Your task to perform on an android device: clear history in the chrome app Image 0: 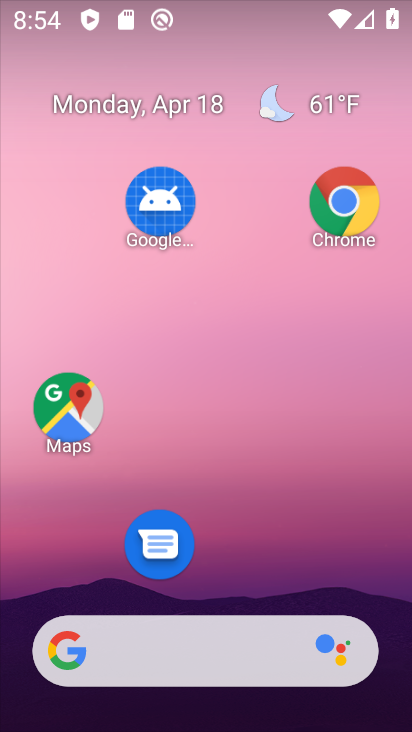
Step 0: click (344, 205)
Your task to perform on an android device: clear history in the chrome app Image 1: 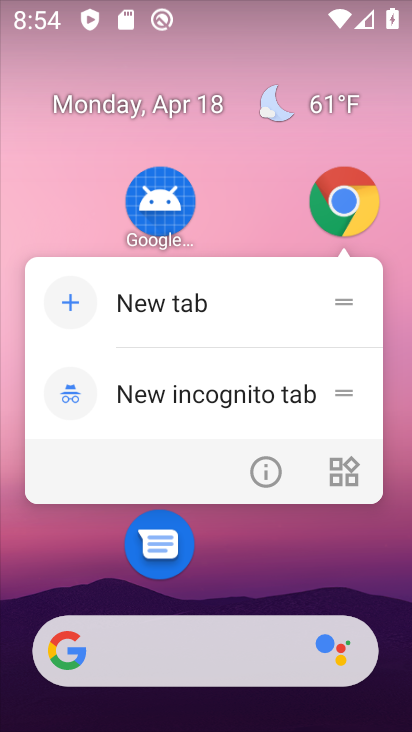
Step 1: click (325, 193)
Your task to perform on an android device: clear history in the chrome app Image 2: 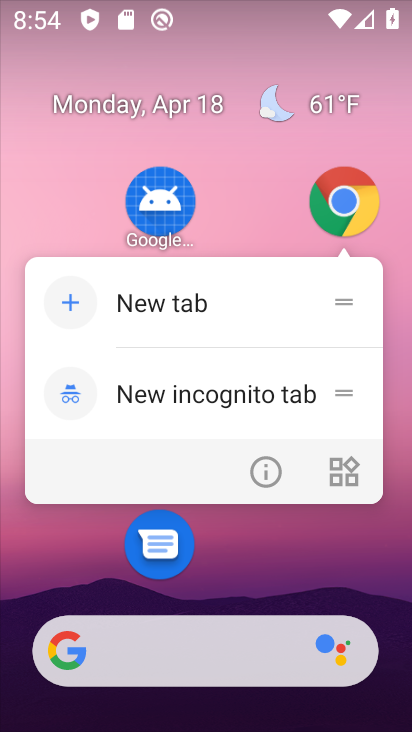
Step 2: click (328, 207)
Your task to perform on an android device: clear history in the chrome app Image 3: 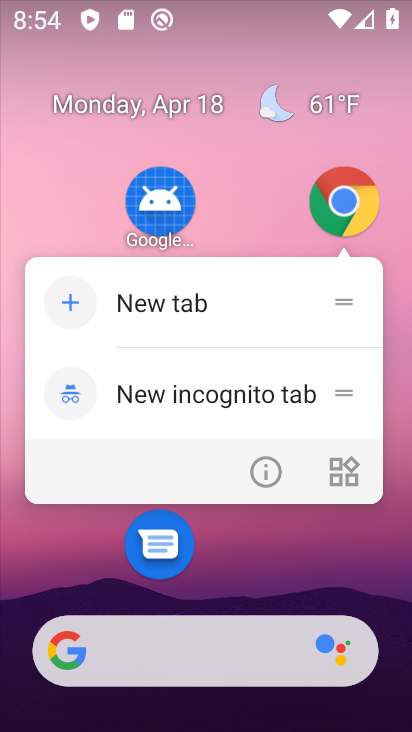
Step 3: click (335, 207)
Your task to perform on an android device: clear history in the chrome app Image 4: 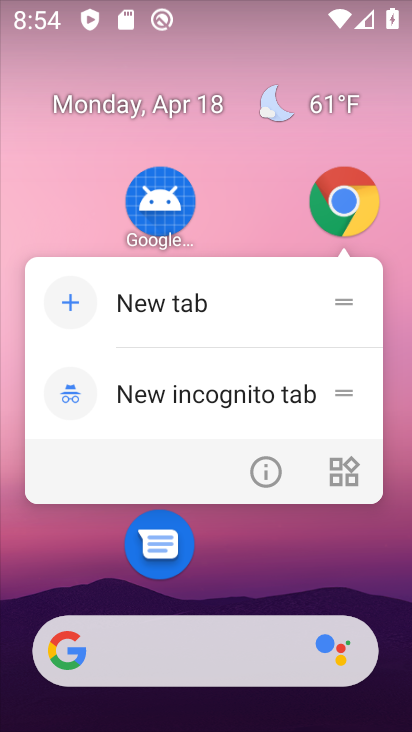
Step 4: click (340, 200)
Your task to perform on an android device: clear history in the chrome app Image 5: 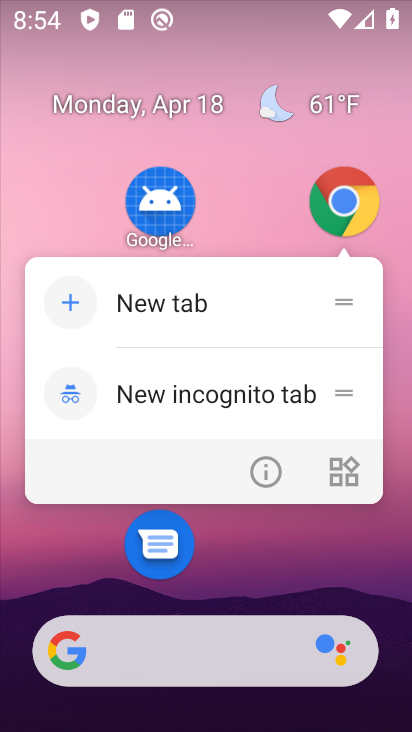
Step 5: click (337, 199)
Your task to perform on an android device: clear history in the chrome app Image 6: 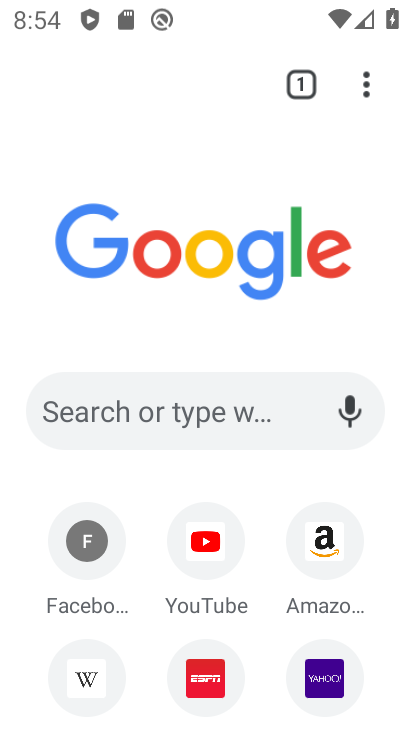
Step 6: click (365, 84)
Your task to perform on an android device: clear history in the chrome app Image 7: 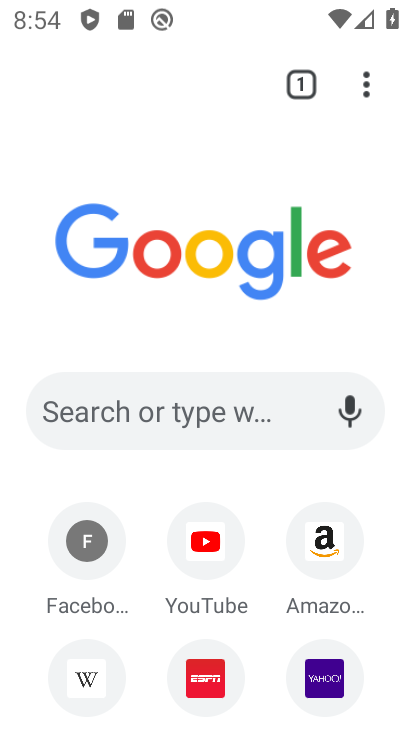
Step 7: click (365, 84)
Your task to perform on an android device: clear history in the chrome app Image 8: 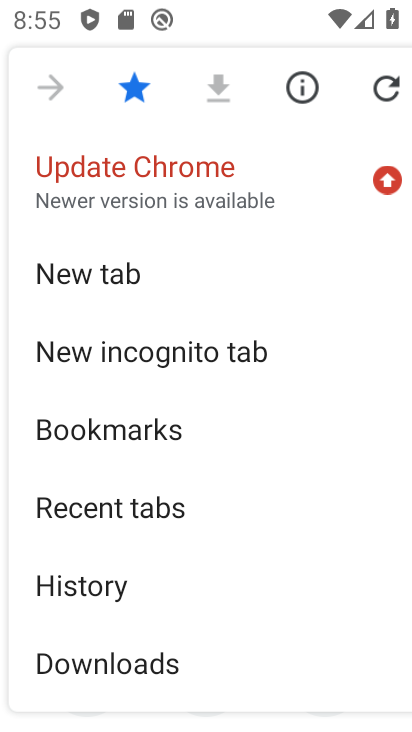
Step 8: click (99, 594)
Your task to perform on an android device: clear history in the chrome app Image 9: 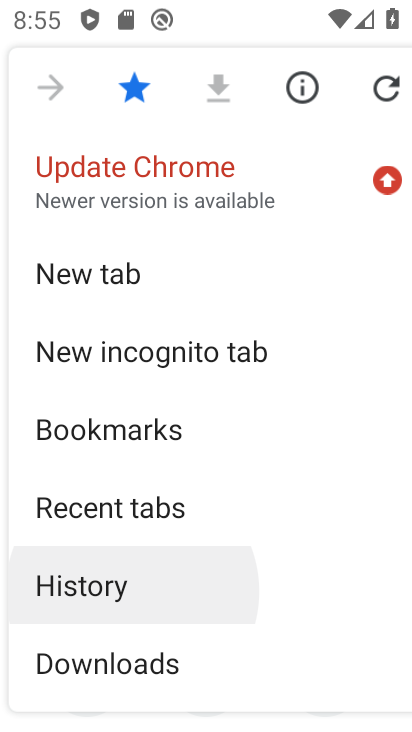
Step 9: click (106, 578)
Your task to perform on an android device: clear history in the chrome app Image 10: 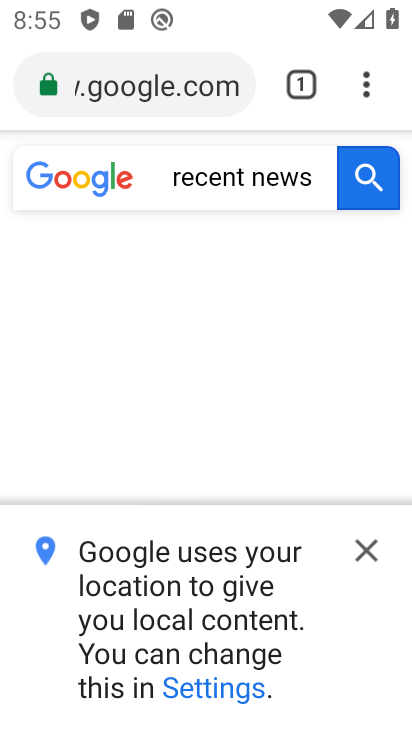
Step 10: click (361, 547)
Your task to perform on an android device: clear history in the chrome app Image 11: 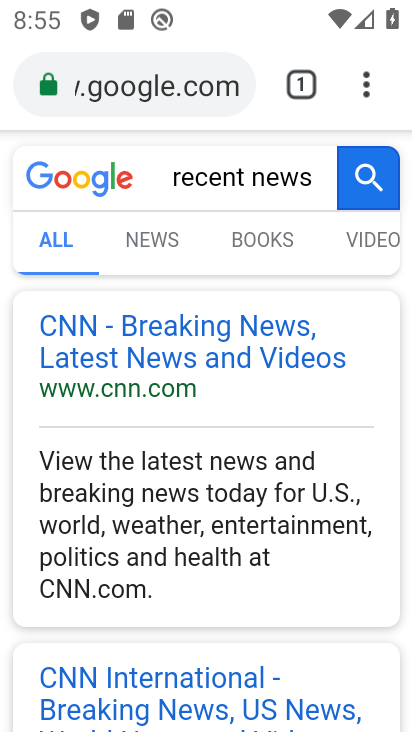
Step 11: drag from (13, 388) to (345, 404)
Your task to perform on an android device: clear history in the chrome app Image 12: 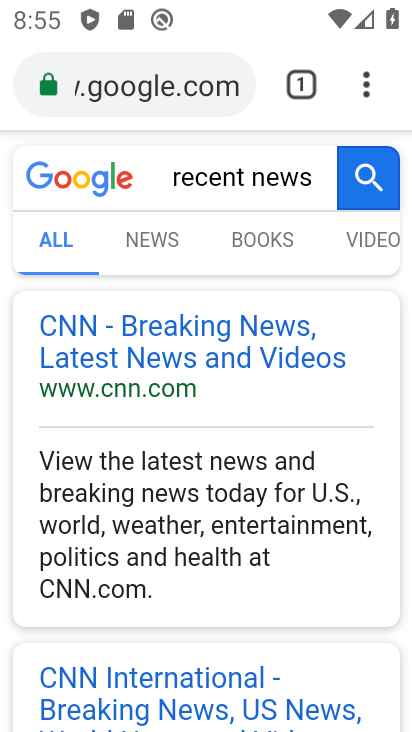
Step 12: press back button
Your task to perform on an android device: clear history in the chrome app Image 13: 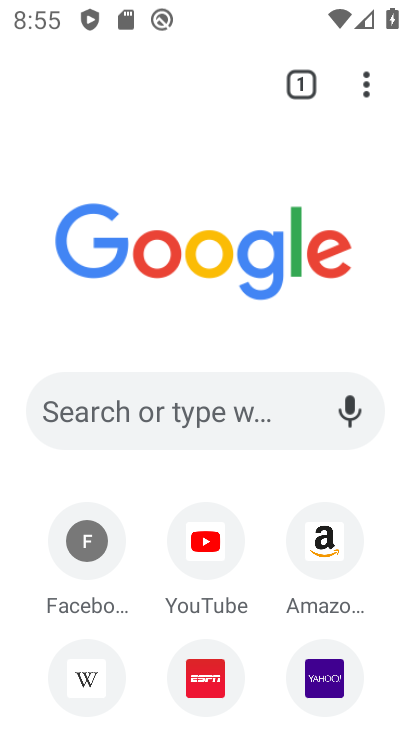
Step 13: click (370, 102)
Your task to perform on an android device: clear history in the chrome app Image 14: 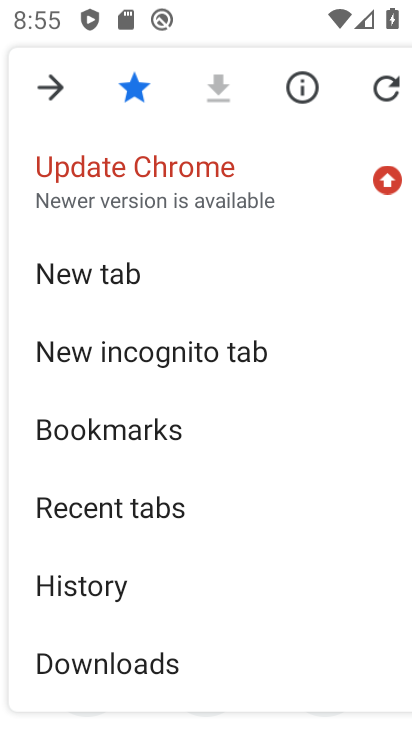
Step 14: click (123, 564)
Your task to perform on an android device: clear history in the chrome app Image 15: 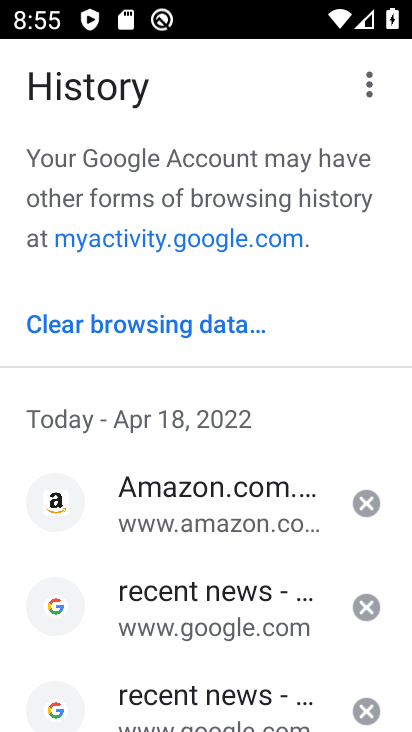
Step 15: click (125, 320)
Your task to perform on an android device: clear history in the chrome app Image 16: 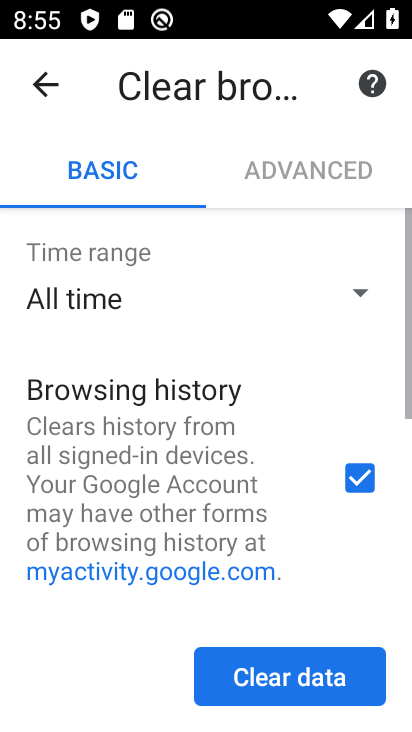
Step 16: click (336, 667)
Your task to perform on an android device: clear history in the chrome app Image 17: 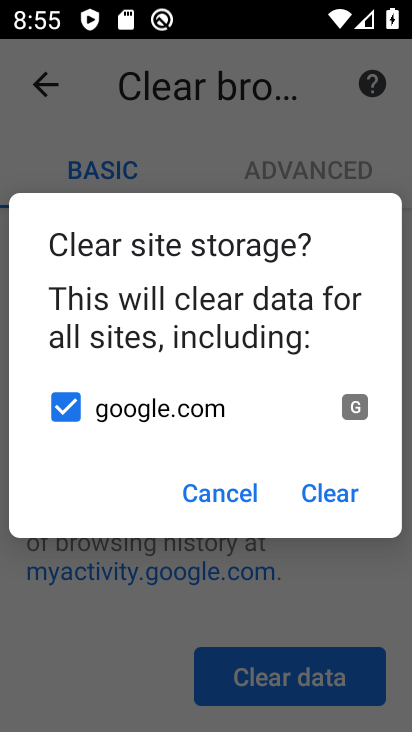
Step 17: click (339, 500)
Your task to perform on an android device: clear history in the chrome app Image 18: 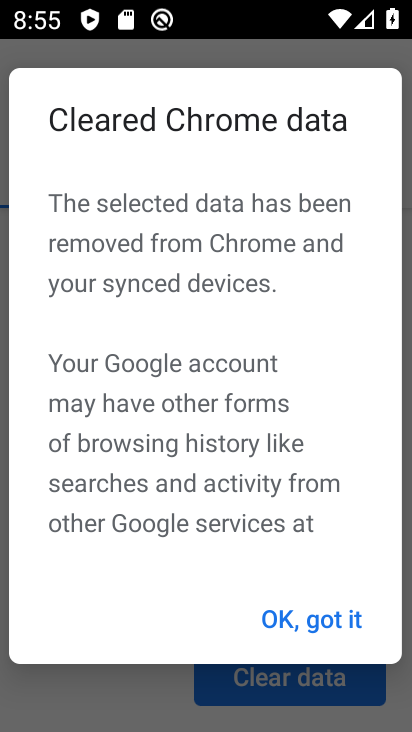
Step 18: click (332, 603)
Your task to perform on an android device: clear history in the chrome app Image 19: 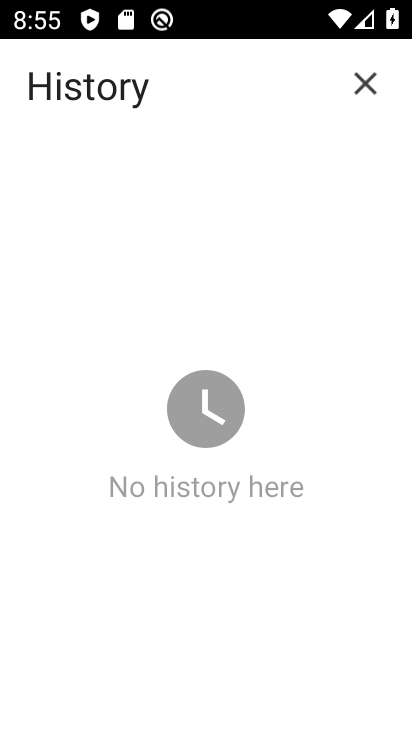
Step 19: task complete